Your task to perform on an android device: open wifi settings Image 0: 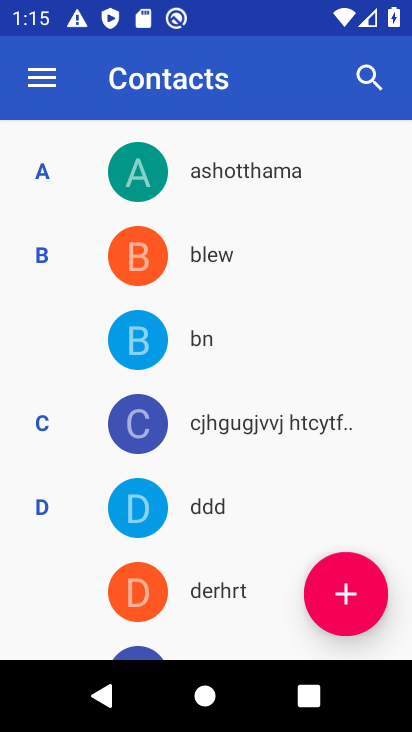
Step 0: press home button
Your task to perform on an android device: open wifi settings Image 1: 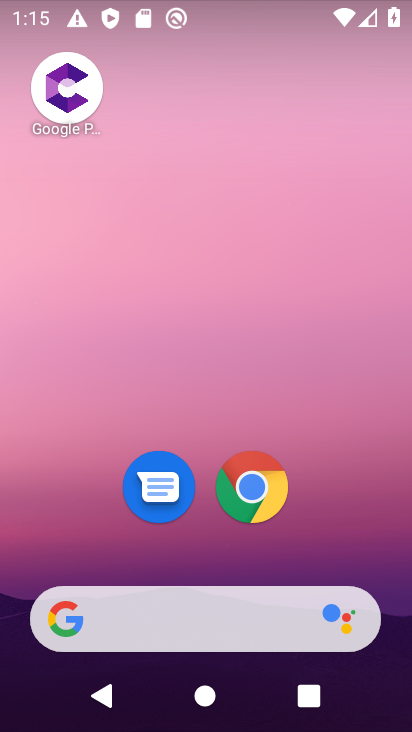
Step 1: drag from (270, 6) to (233, 470)
Your task to perform on an android device: open wifi settings Image 2: 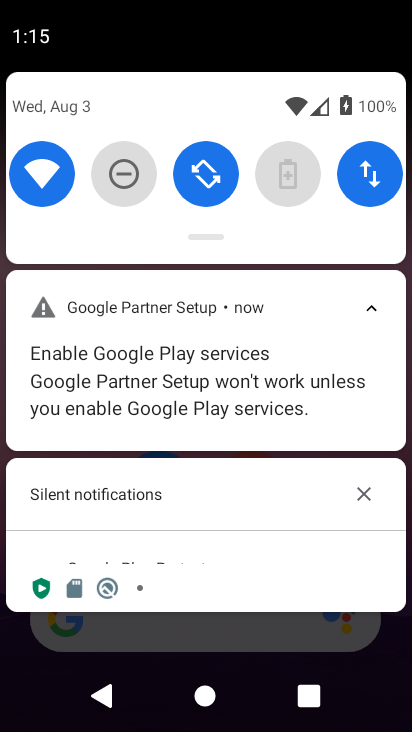
Step 2: click (42, 165)
Your task to perform on an android device: open wifi settings Image 3: 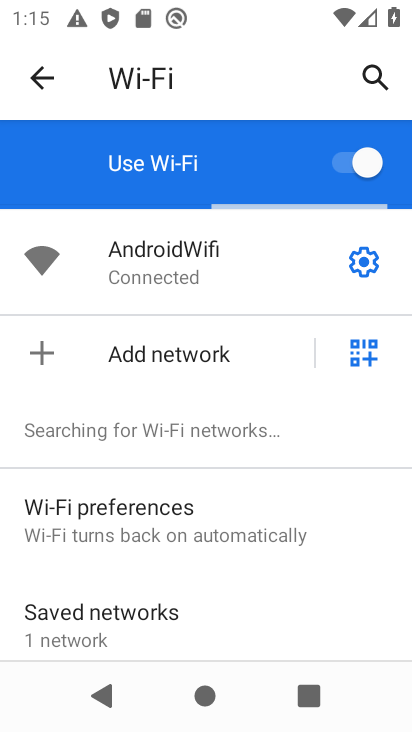
Step 3: task complete